Your task to perform on an android device: Turn on the flashlight Image 0: 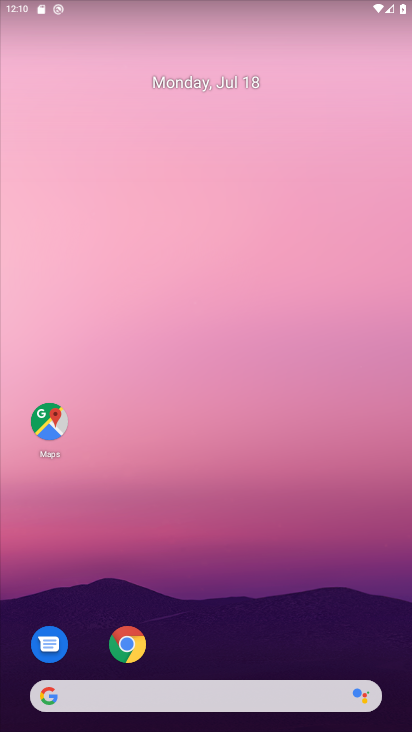
Step 0: drag from (351, 5) to (300, 679)
Your task to perform on an android device: Turn on the flashlight Image 1: 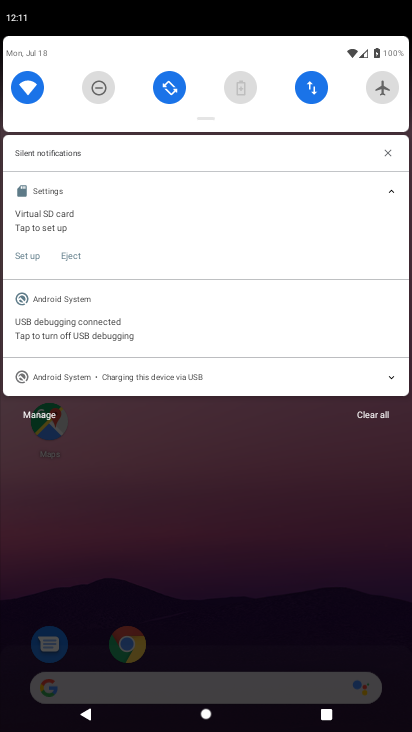
Step 1: task complete